Your task to perform on an android device: What's the weather today? Image 0: 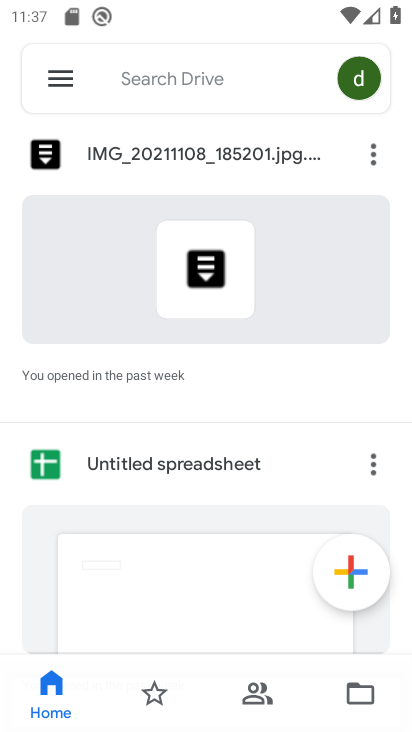
Step 0: press home button
Your task to perform on an android device: What's the weather today? Image 1: 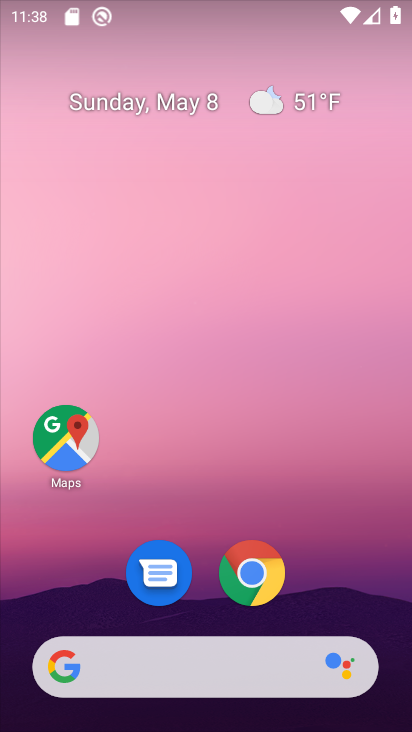
Step 1: drag from (195, 636) to (229, 222)
Your task to perform on an android device: What's the weather today? Image 2: 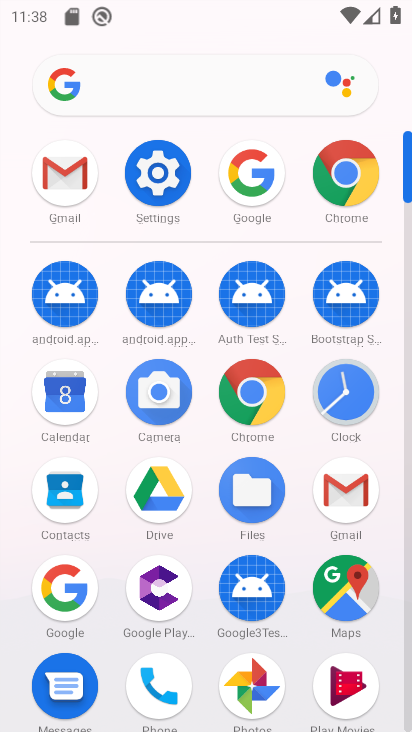
Step 2: click (240, 187)
Your task to perform on an android device: What's the weather today? Image 3: 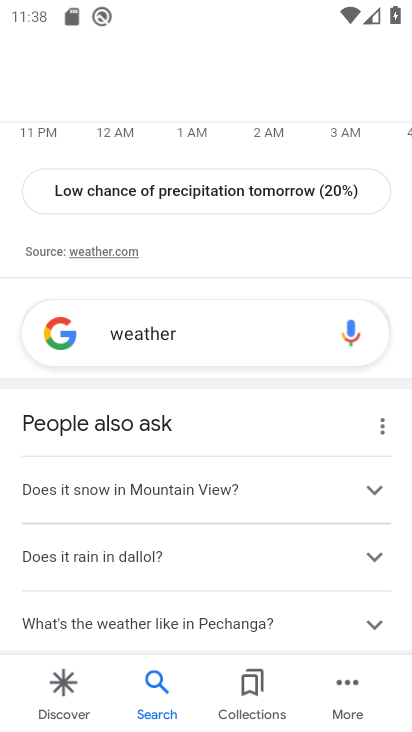
Step 3: drag from (209, 206) to (204, 550)
Your task to perform on an android device: What's the weather today? Image 4: 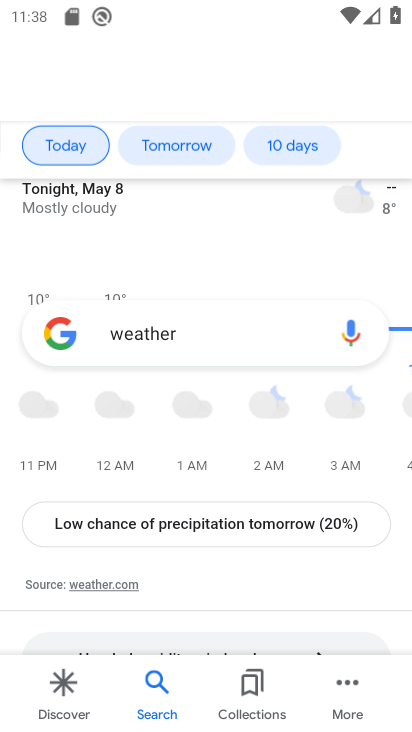
Step 4: click (203, 526)
Your task to perform on an android device: What's the weather today? Image 5: 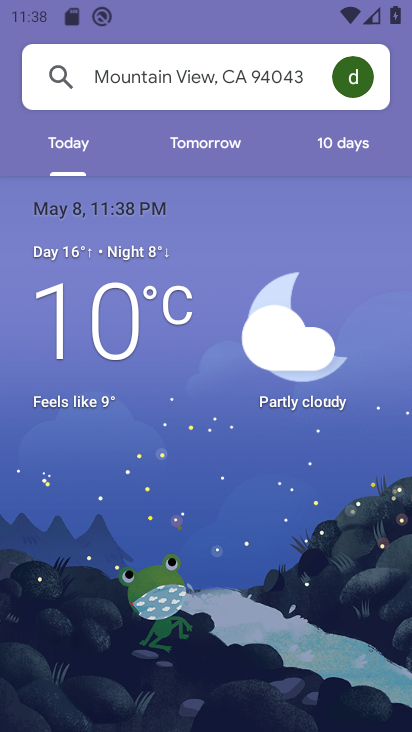
Step 5: task complete